Your task to perform on an android device: What's the weather? Image 0: 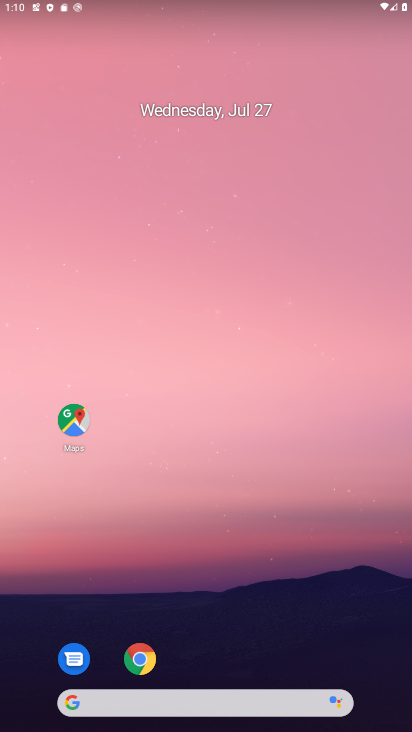
Step 0: drag from (280, 620) to (217, 2)
Your task to perform on an android device: What's the weather? Image 1: 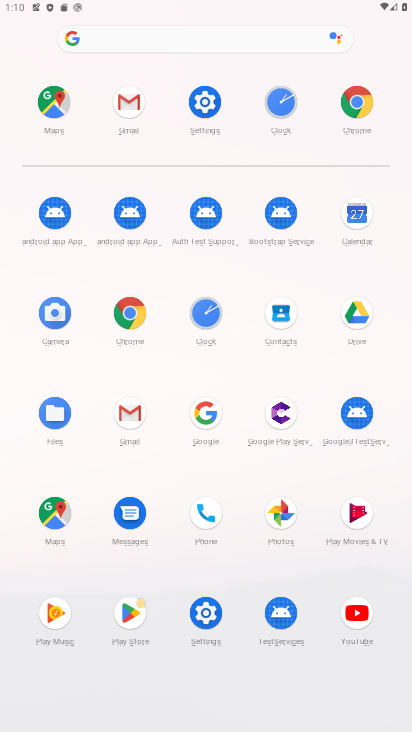
Step 1: click (361, 101)
Your task to perform on an android device: What's the weather? Image 2: 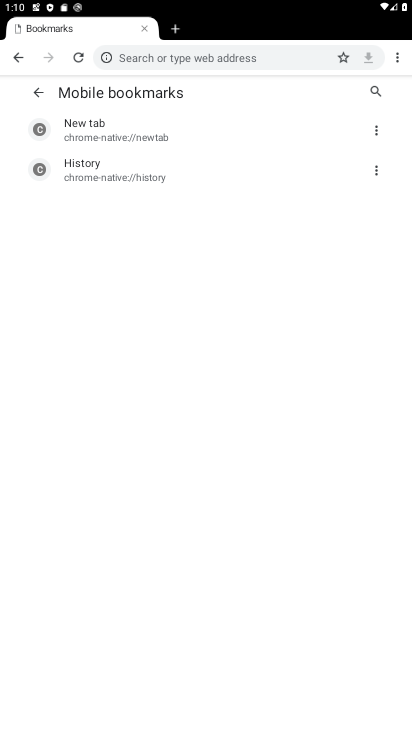
Step 2: click (230, 57)
Your task to perform on an android device: What's the weather? Image 3: 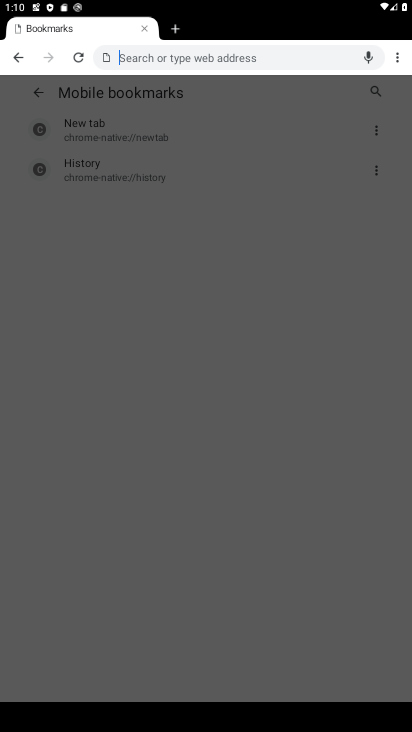
Step 3: type "weather"
Your task to perform on an android device: What's the weather? Image 4: 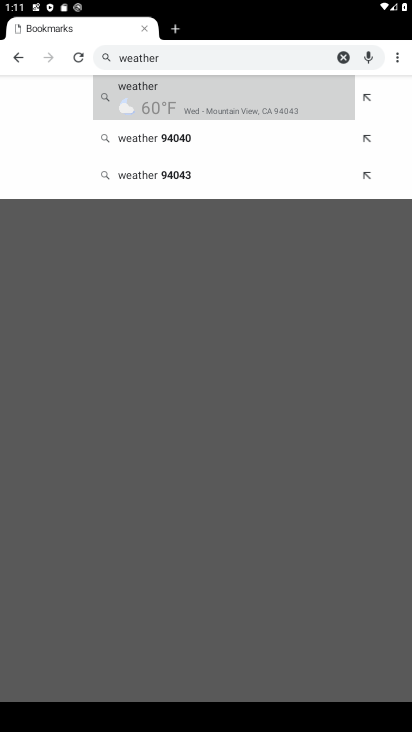
Step 4: click (230, 99)
Your task to perform on an android device: What's the weather? Image 5: 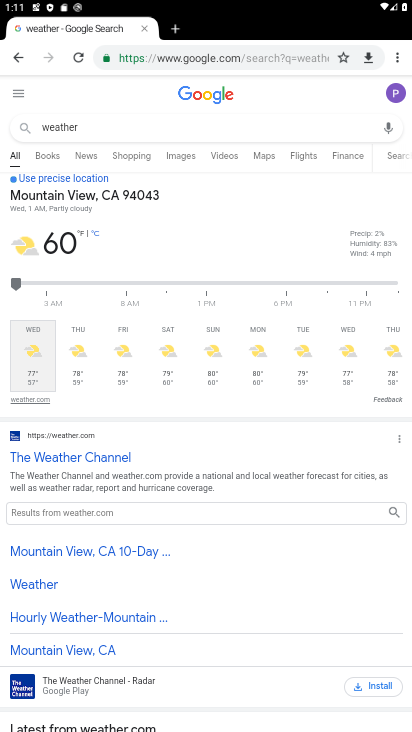
Step 5: task complete